Your task to perform on an android device: empty trash in the gmail app Image 0: 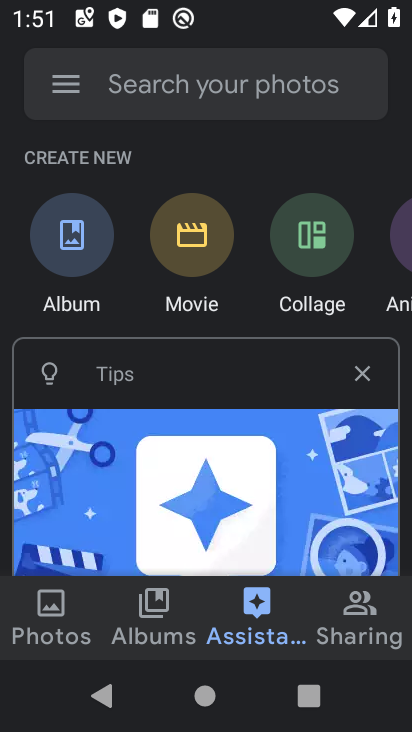
Step 0: click (43, 89)
Your task to perform on an android device: empty trash in the gmail app Image 1: 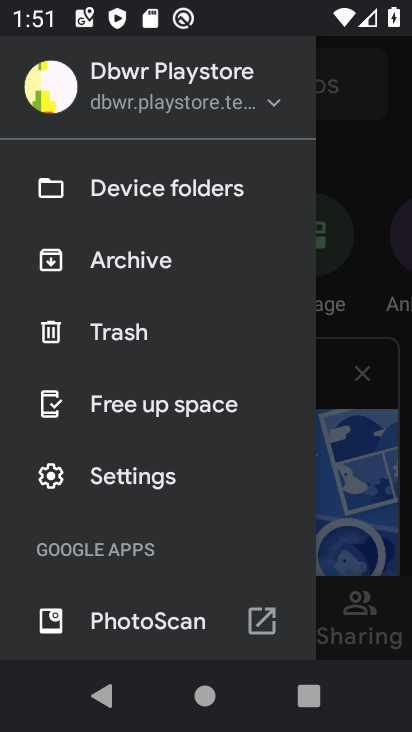
Step 1: click (148, 343)
Your task to perform on an android device: empty trash in the gmail app Image 2: 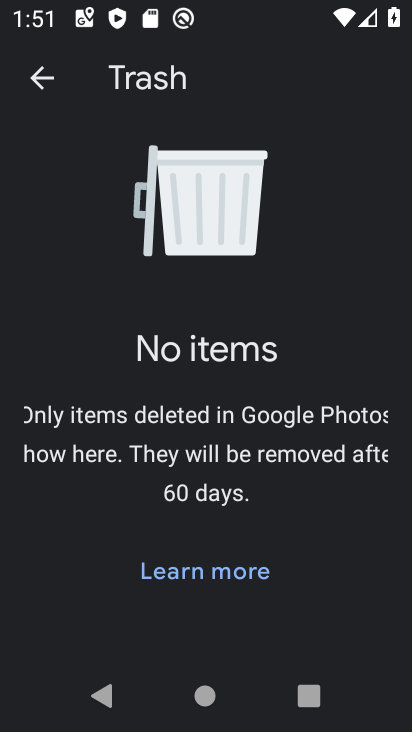
Step 2: task complete